Your task to perform on an android device: check android version Image 0: 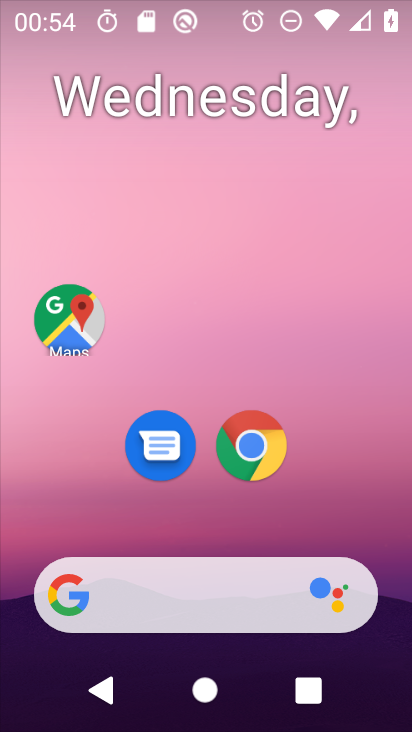
Step 0: drag from (283, 530) to (325, 39)
Your task to perform on an android device: check android version Image 1: 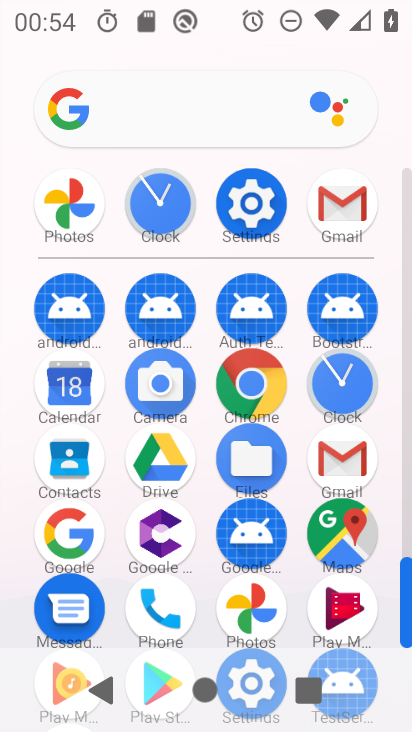
Step 1: click (240, 203)
Your task to perform on an android device: check android version Image 2: 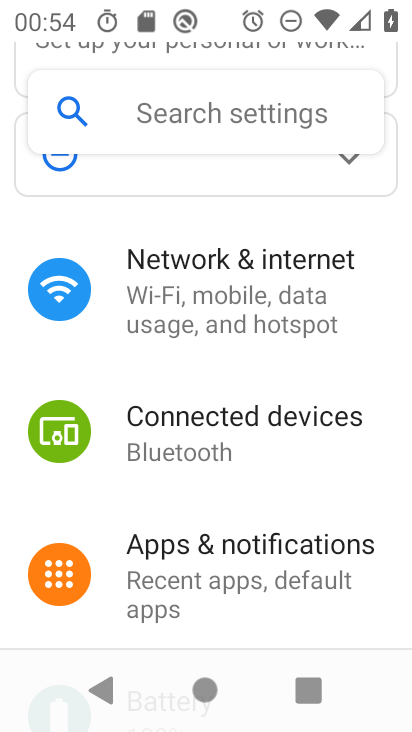
Step 2: drag from (254, 504) to (225, 169)
Your task to perform on an android device: check android version Image 3: 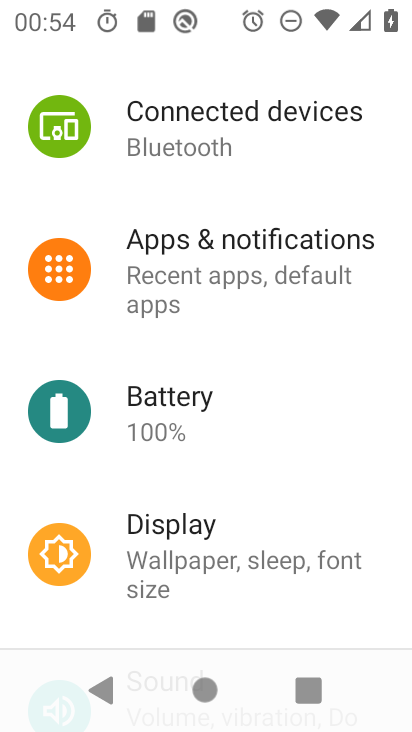
Step 3: drag from (263, 512) to (268, 149)
Your task to perform on an android device: check android version Image 4: 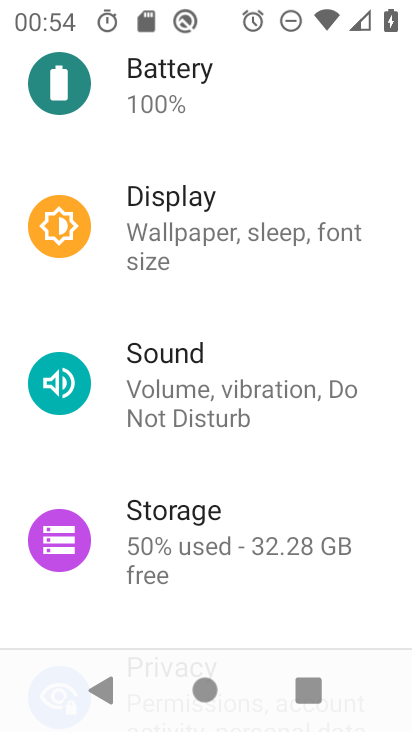
Step 4: drag from (308, 490) to (310, 268)
Your task to perform on an android device: check android version Image 5: 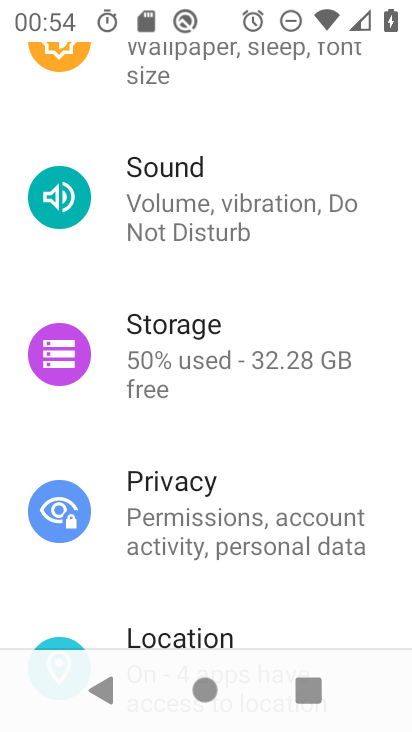
Step 5: drag from (230, 575) to (224, 177)
Your task to perform on an android device: check android version Image 6: 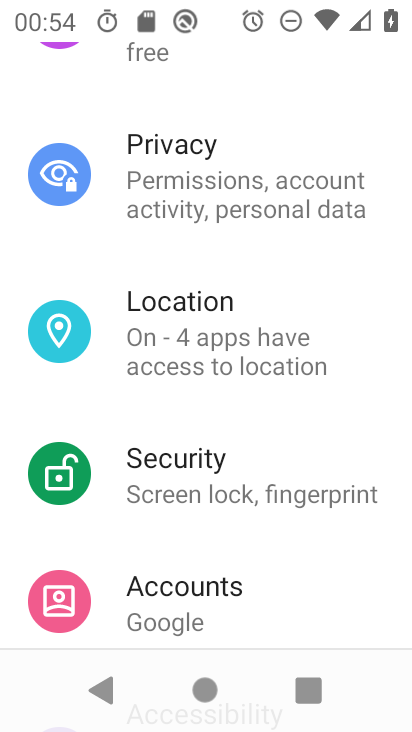
Step 6: drag from (195, 543) to (170, 492)
Your task to perform on an android device: check android version Image 7: 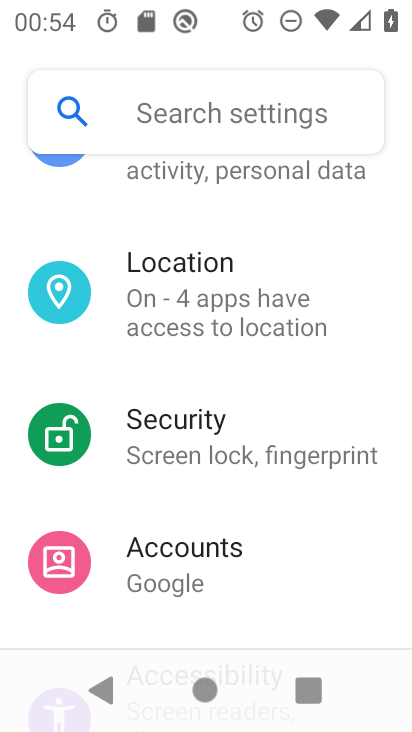
Step 7: drag from (152, 556) to (227, 244)
Your task to perform on an android device: check android version Image 8: 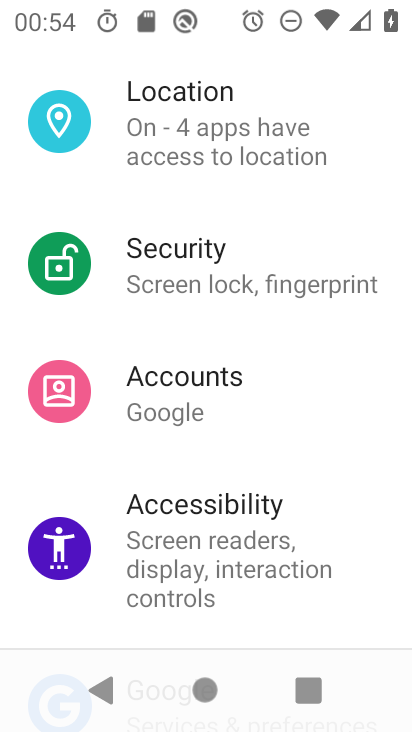
Step 8: drag from (199, 478) to (253, 307)
Your task to perform on an android device: check android version Image 9: 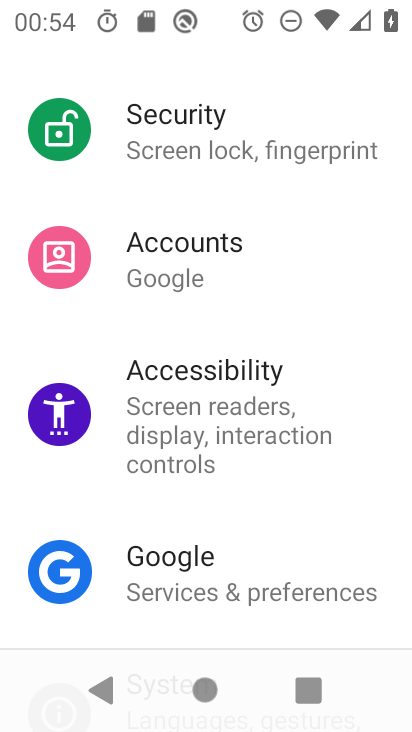
Step 9: drag from (243, 529) to (298, 363)
Your task to perform on an android device: check android version Image 10: 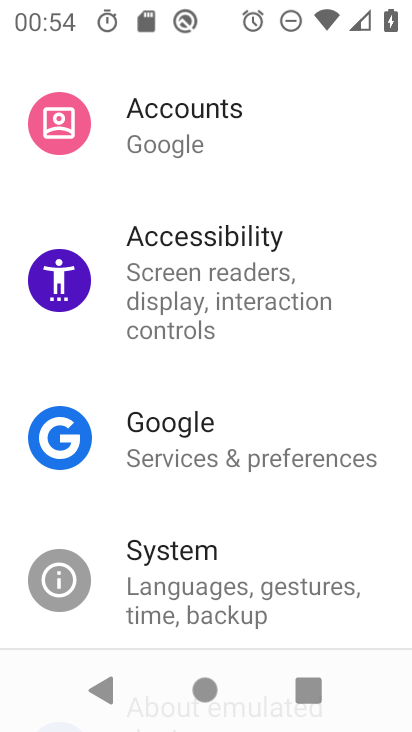
Step 10: drag from (239, 527) to (229, 312)
Your task to perform on an android device: check android version Image 11: 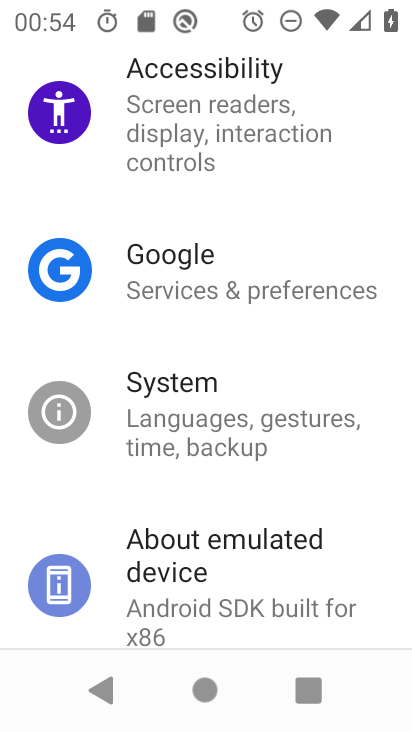
Step 11: click (227, 542)
Your task to perform on an android device: check android version Image 12: 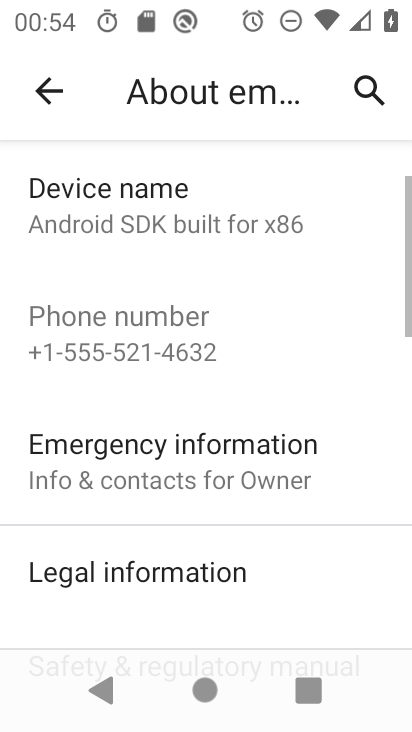
Step 12: drag from (232, 539) to (351, 367)
Your task to perform on an android device: check android version Image 13: 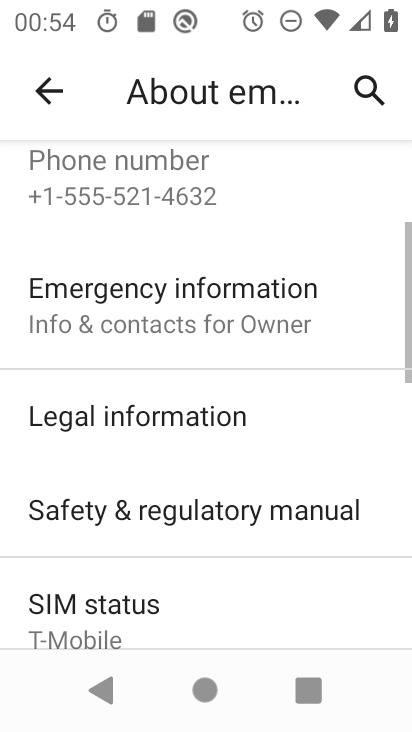
Step 13: drag from (231, 579) to (244, 241)
Your task to perform on an android device: check android version Image 14: 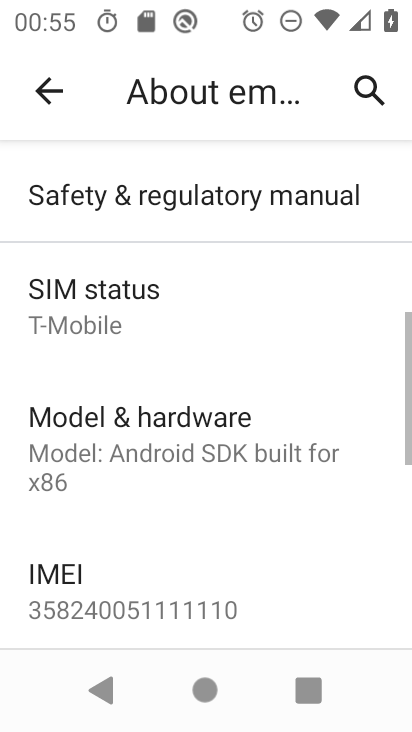
Step 14: drag from (218, 595) to (252, 270)
Your task to perform on an android device: check android version Image 15: 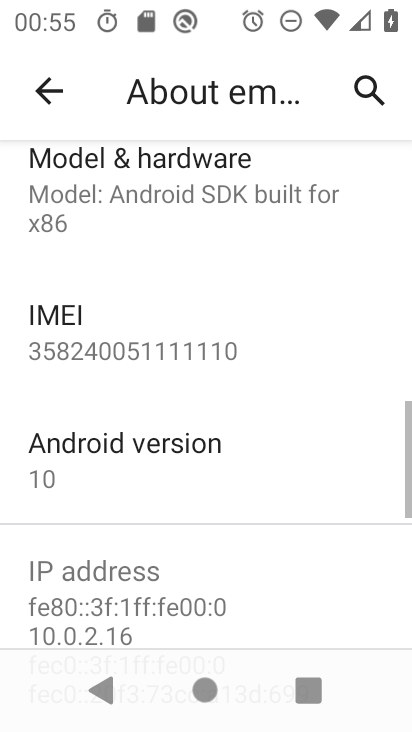
Step 15: click (183, 494)
Your task to perform on an android device: check android version Image 16: 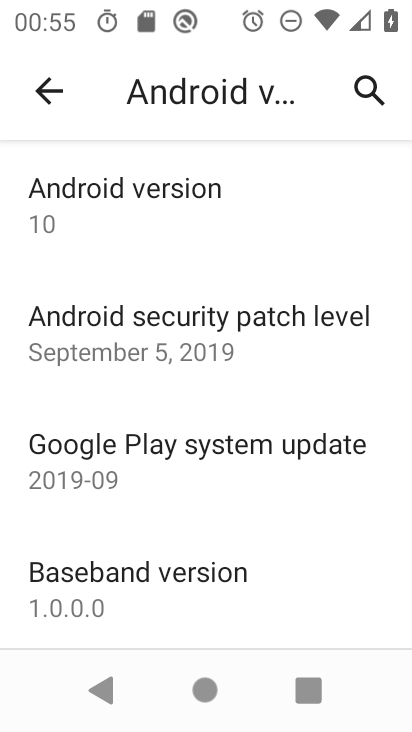
Step 16: click (256, 171)
Your task to perform on an android device: check android version Image 17: 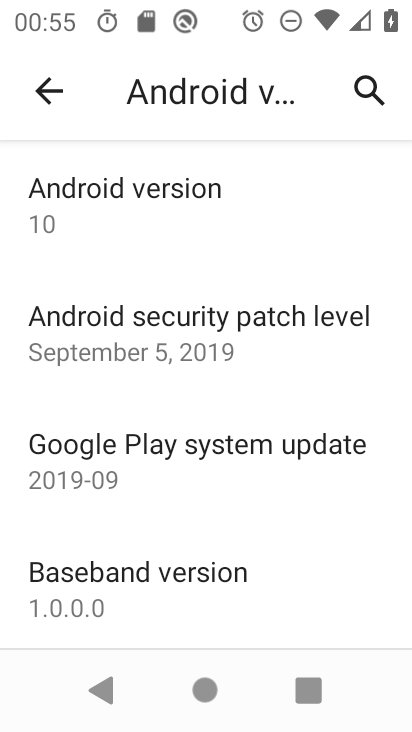
Step 17: task complete